Your task to perform on an android device: open a bookmark in the chrome app Image 0: 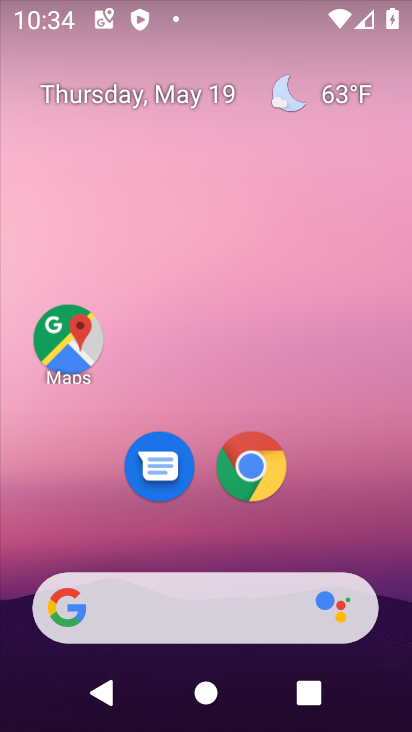
Step 0: drag from (393, 621) to (253, 24)
Your task to perform on an android device: open a bookmark in the chrome app Image 1: 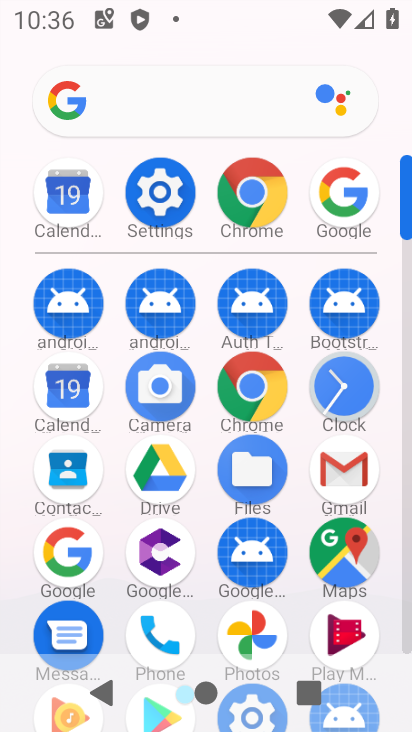
Step 1: click (270, 365)
Your task to perform on an android device: open a bookmark in the chrome app Image 2: 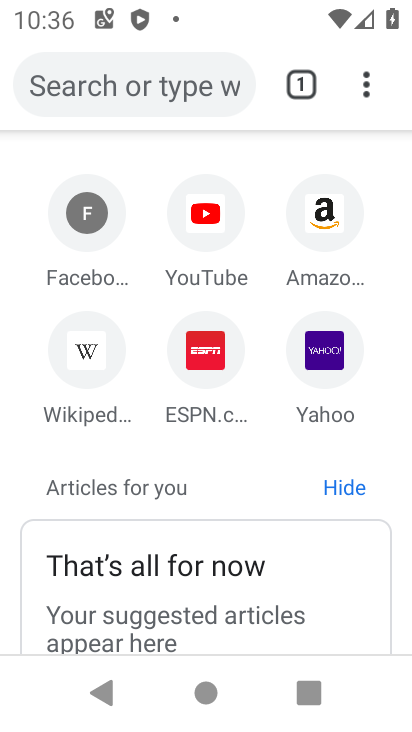
Step 2: click (369, 81)
Your task to perform on an android device: open a bookmark in the chrome app Image 3: 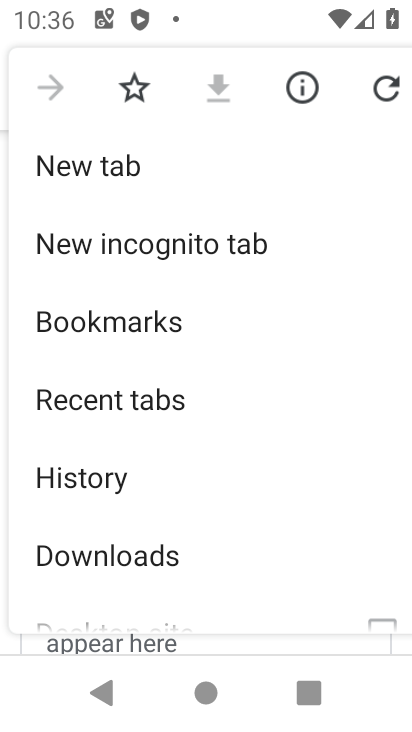
Step 3: click (159, 315)
Your task to perform on an android device: open a bookmark in the chrome app Image 4: 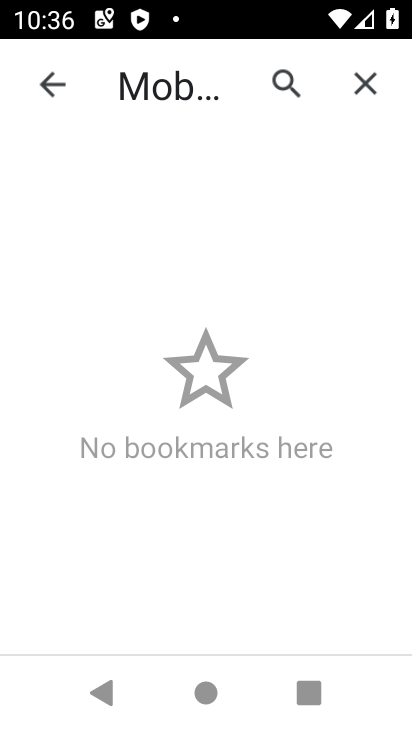
Step 4: task complete